Your task to perform on an android device: check storage Image 0: 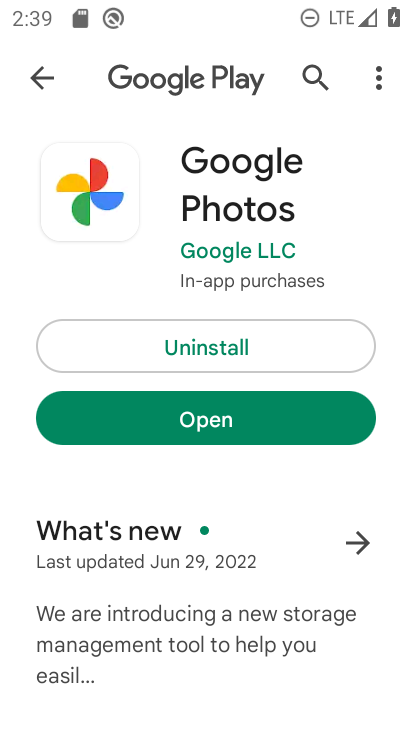
Step 0: press home button
Your task to perform on an android device: check storage Image 1: 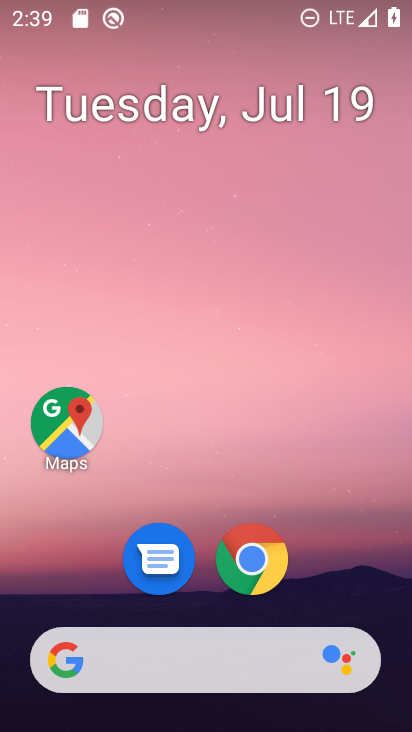
Step 1: drag from (201, 645) to (217, 203)
Your task to perform on an android device: check storage Image 2: 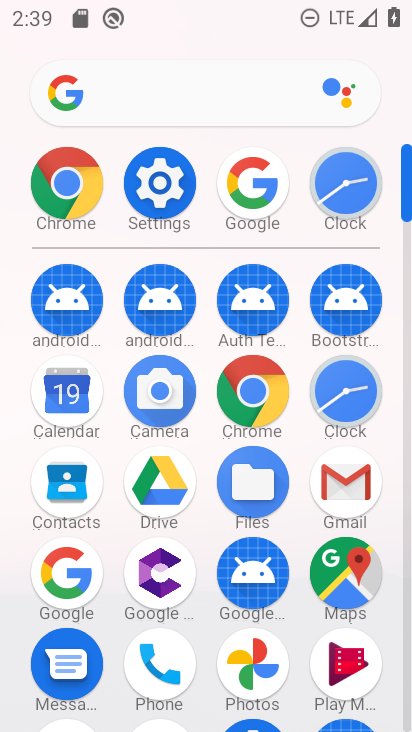
Step 2: click (182, 194)
Your task to perform on an android device: check storage Image 3: 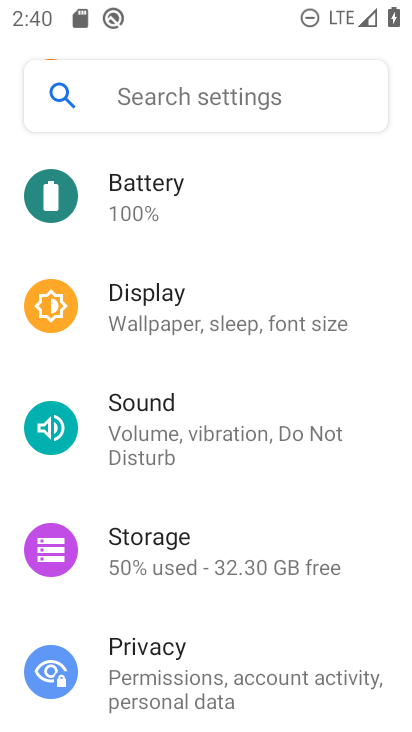
Step 3: click (208, 565)
Your task to perform on an android device: check storage Image 4: 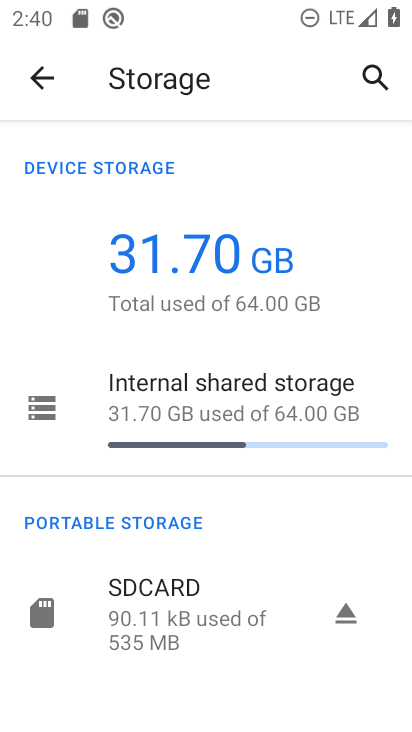
Step 4: click (259, 411)
Your task to perform on an android device: check storage Image 5: 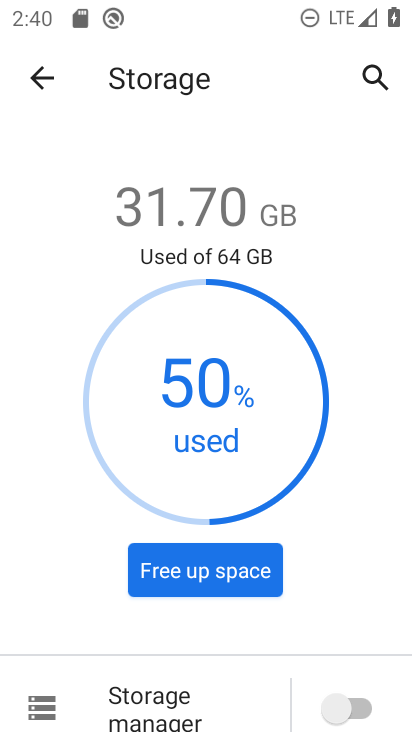
Step 5: task complete